Your task to perform on an android device: find snoozed emails in the gmail app Image 0: 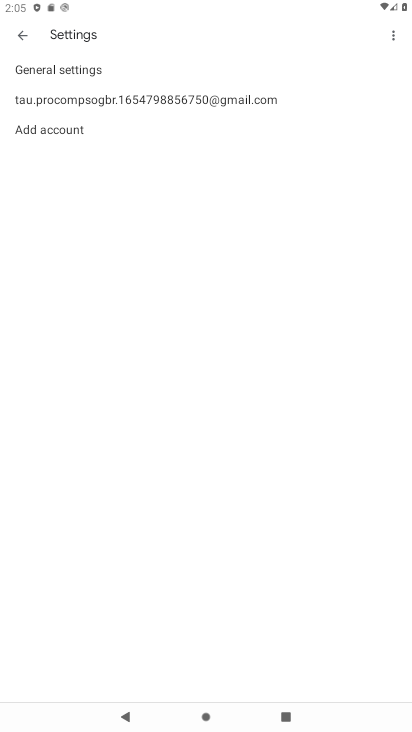
Step 0: press home button
Your task to perform on an android device: find snoozed emails in the gmail app Image 1: 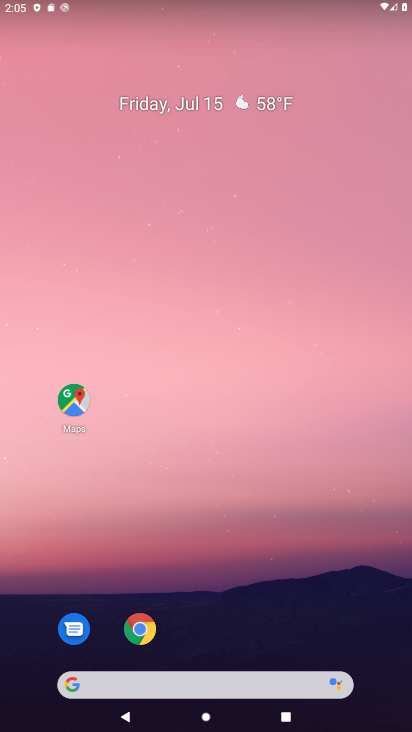
Step 1: drag from (372, 657) to (261, 71)
Your task to perform on an android device: find snoozed emails in the gmail app Image 2: 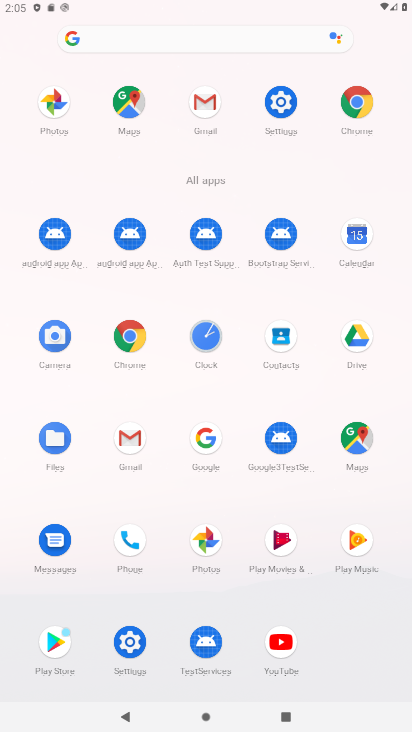
Step 2: click (196, 111)
Your task to perform on an android device: find snoozed emails in the gmail app Image 3: 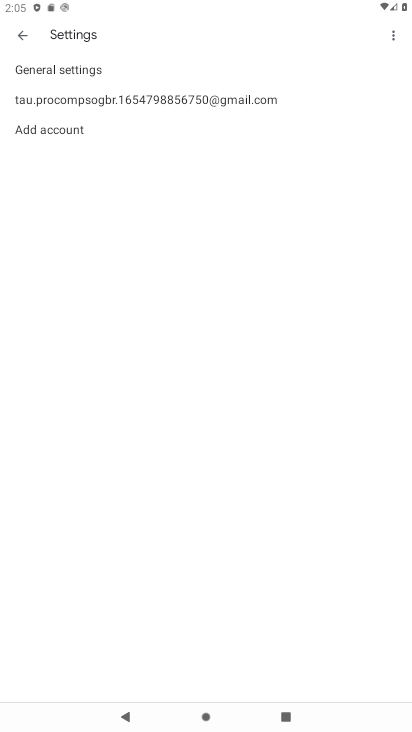
Step 3: click (22, 41)
Your task to perform on an android device: find snoozed emails in the gmail app Image 4: 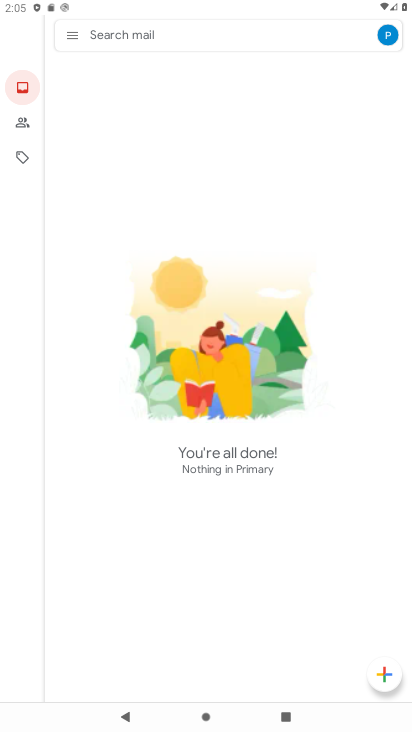
Step 4: click (70, 41)
Your task to perform on an android device: find snoozed emails in the gmail app Image 5: 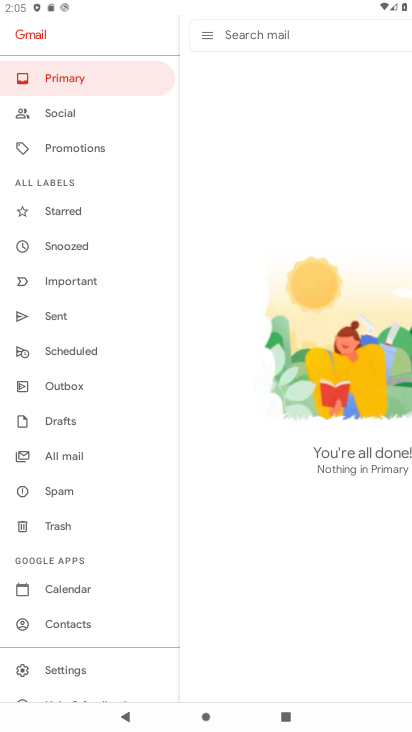
Step 5: click (91, 249)
Your task to perform on an android device: find snoozed emails in the gmail app Image 6: 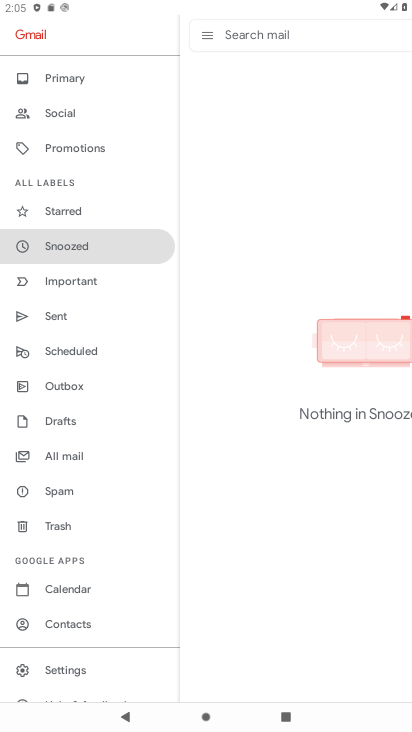
Step 6: task complete